Your task to perform on an android device: Search for "logitech g933" on costco.com, select the first entry, add it to the cart, then select checkout. Image 0: 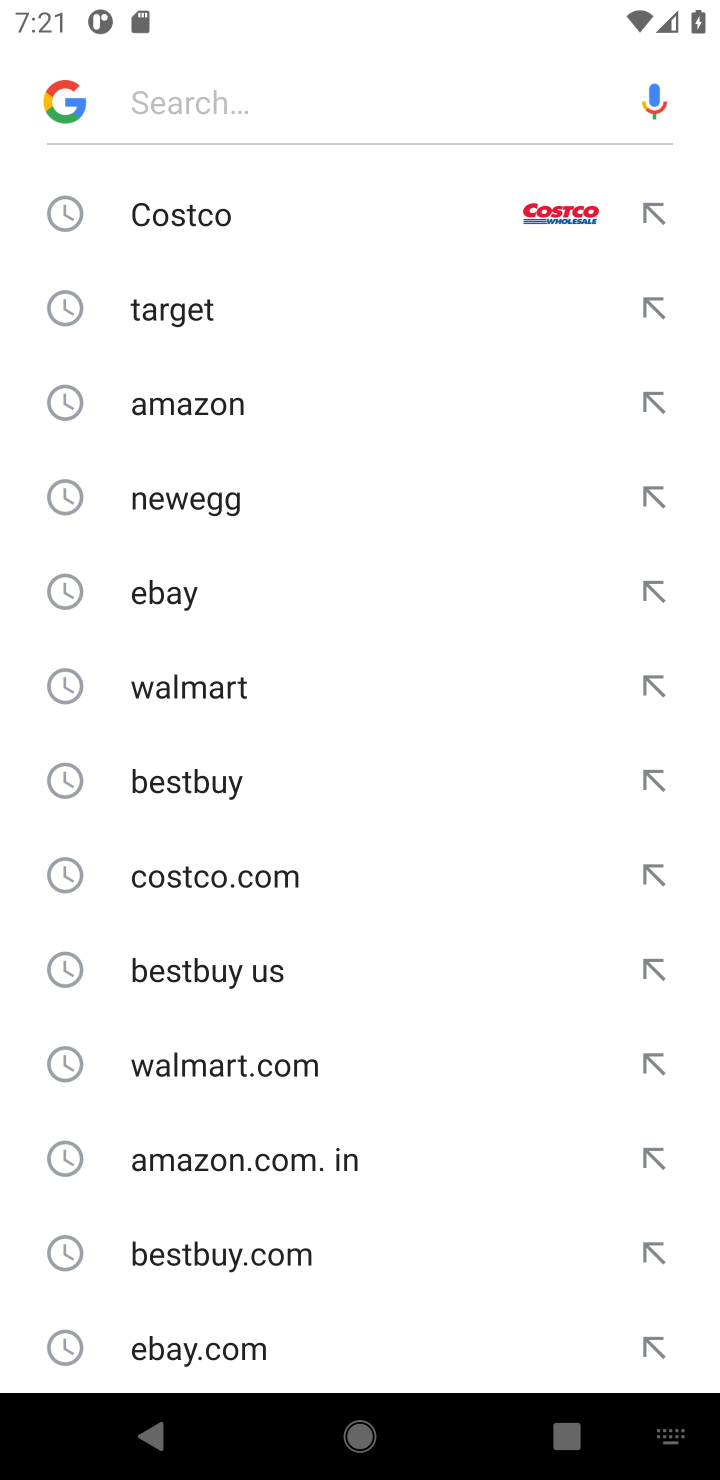
Step 0: type "costco.com"
Your task to perform on an android device: Search for "logitech g933" on costco.com, select the first entry, add it to the cart, then select checkout. Image 1: 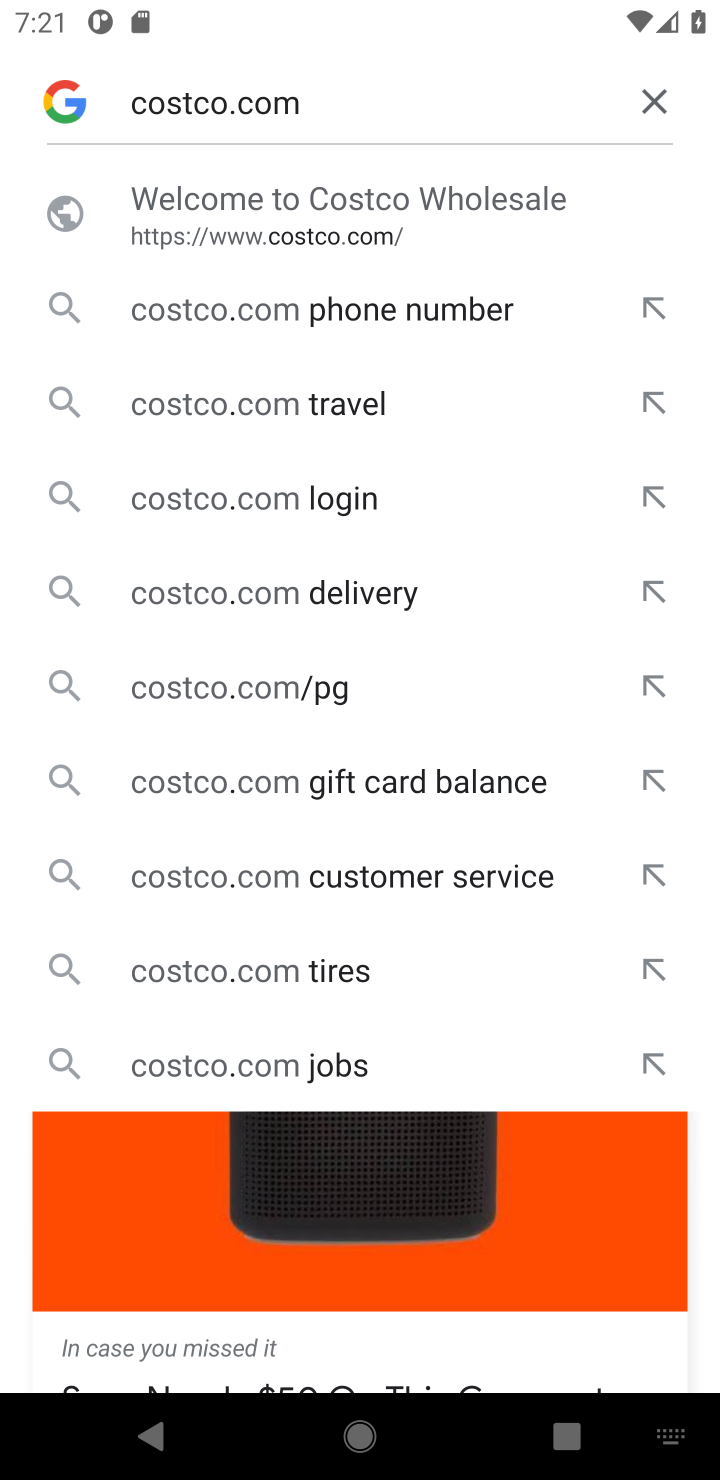
Step 1: click (246, 229)
Your task to perform on an android device: Search for "logitech g933" on costco.com, select the first entry, add it to the cart, then select checkout. Image 2: 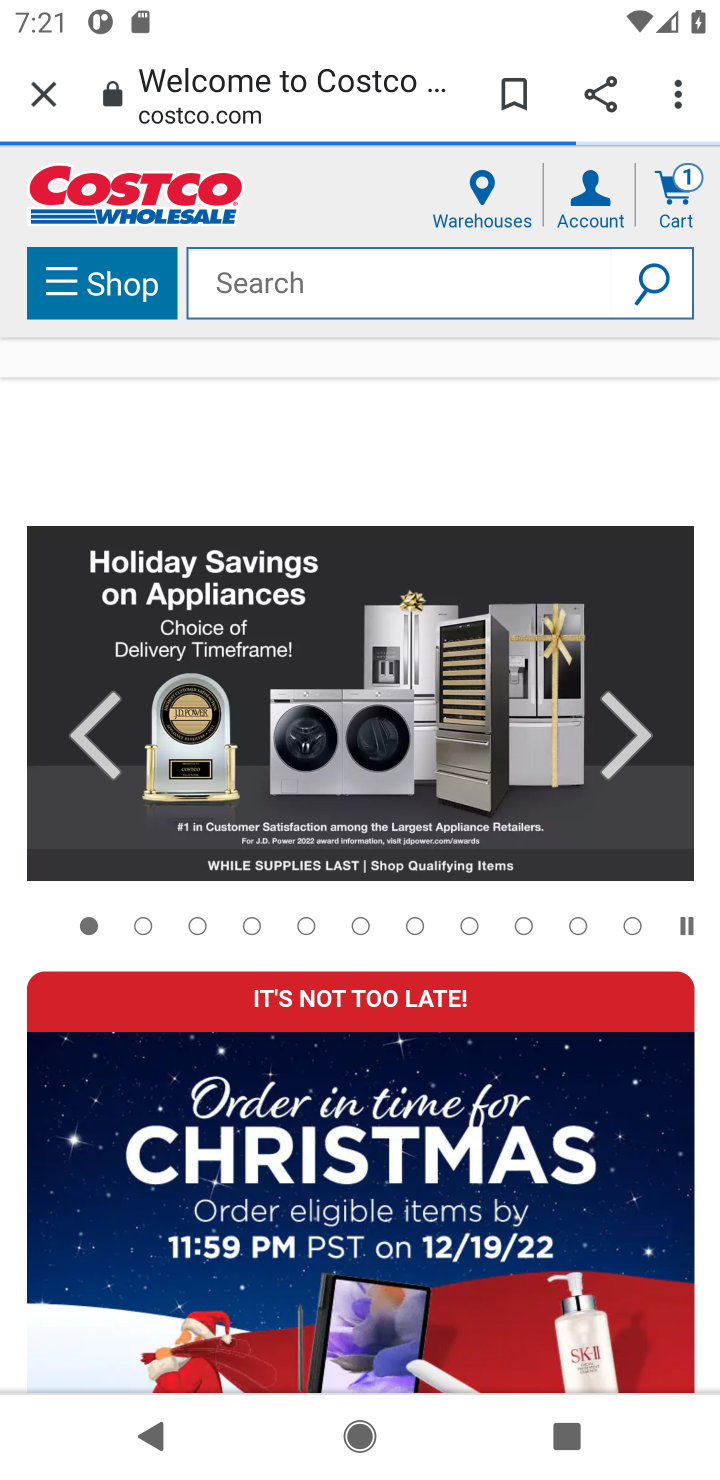
Step 2: click (319, 295)
Your task to perform on an android device: Search for "logitech g933" on costco.com, select the first entry, add it to the cart, then select checkout. Image 3: 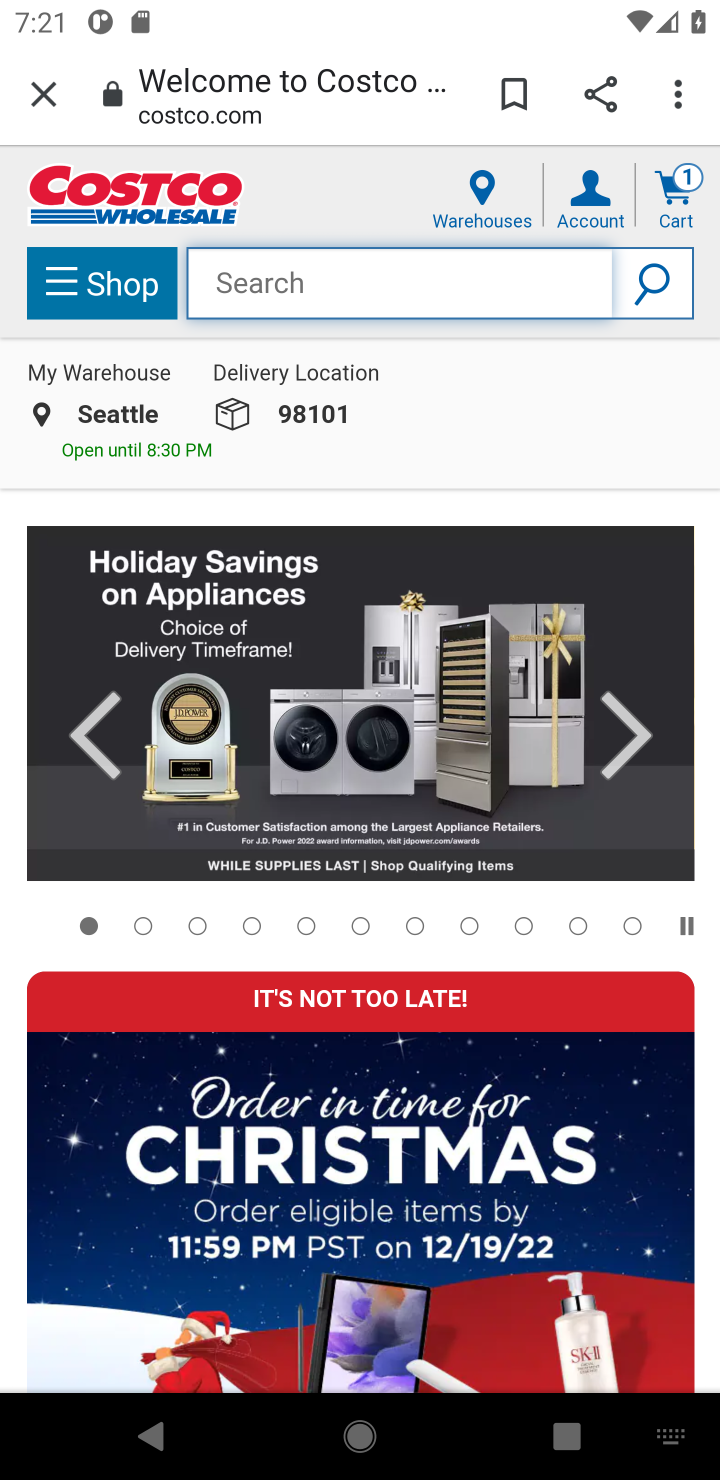
Step 3: type "logitech g933"
Your task to perform on an android device: Search for "logitech g933" on costco.com, select the first entry, add it to the cart, then select checkout. Image 4: 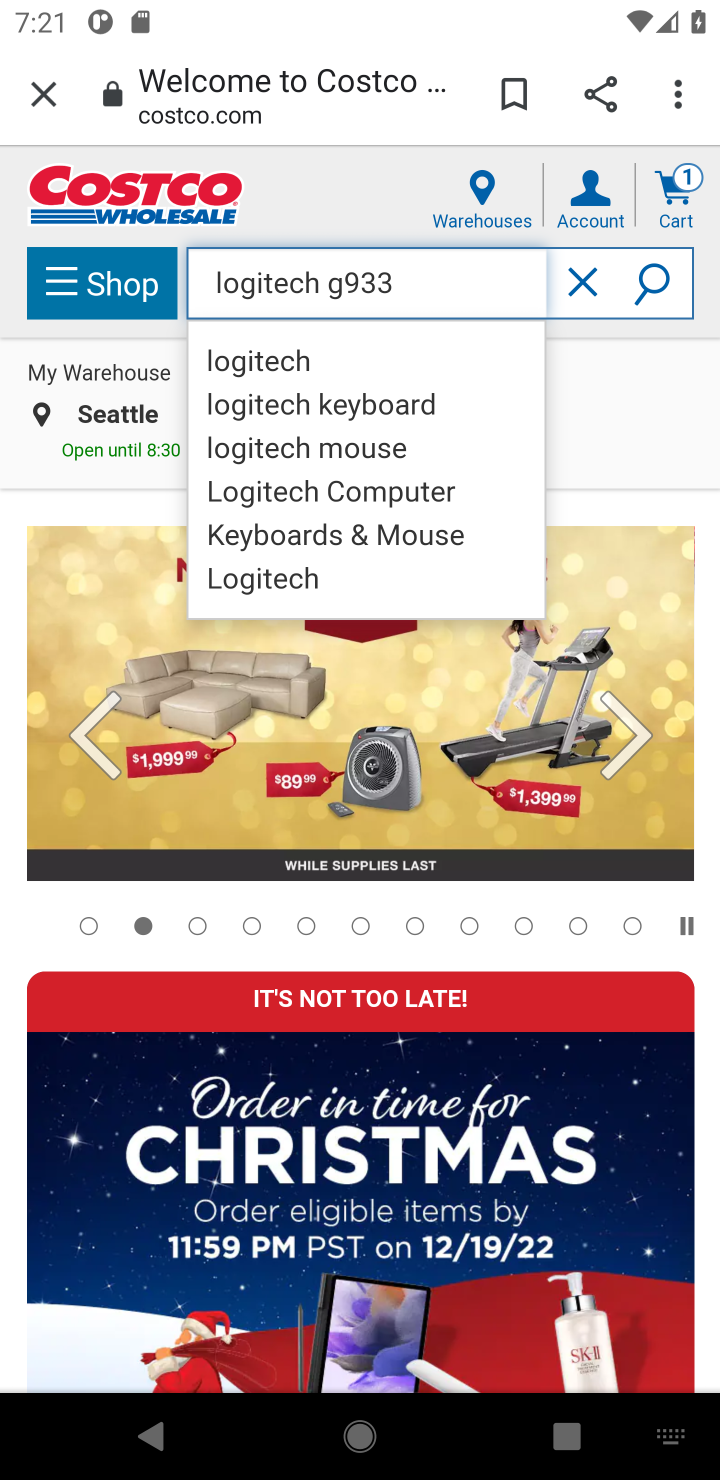
Step 4: click (652, 291)
Your task to perform on an android device: Search for "logitech g933" on costco.com, select the first entry, add it to the cart, then select checkout. Image 5: 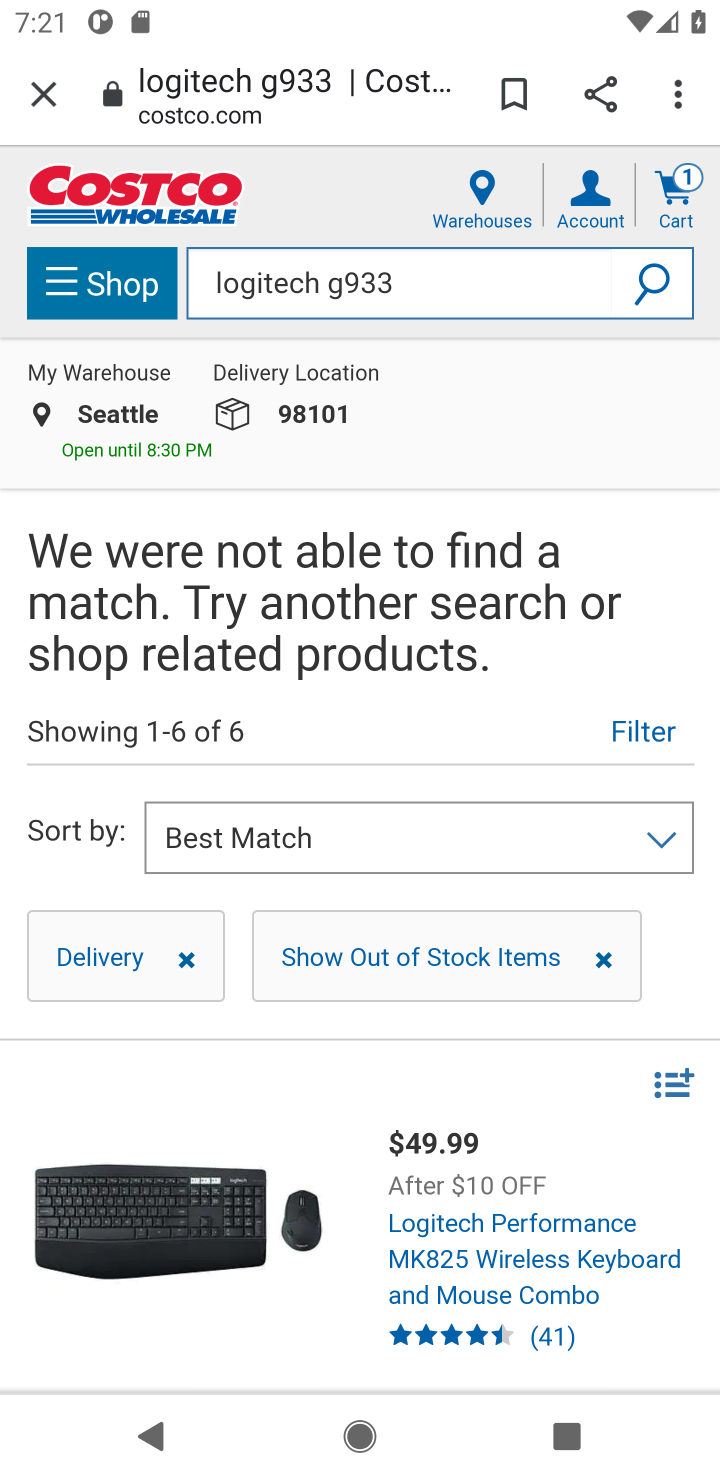
Step 5: task complete